Your task to perform on an android device: Show me popular games on the Play Store Image 0: 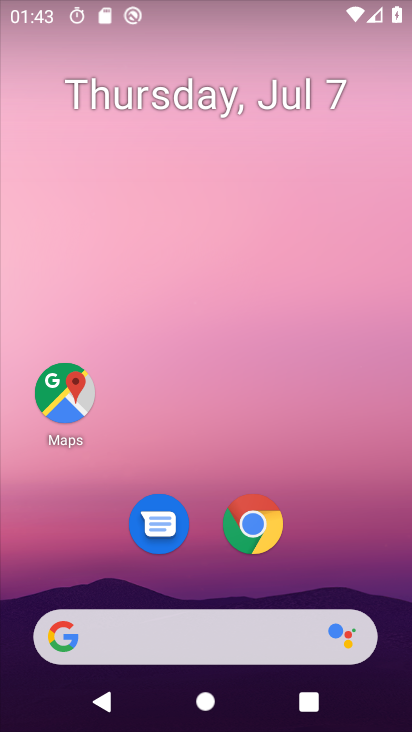
Step 0: drag from (247, 428) to (238, 34)
Your task to perform on an android device: Show me popular games on the Play Store Image 1: 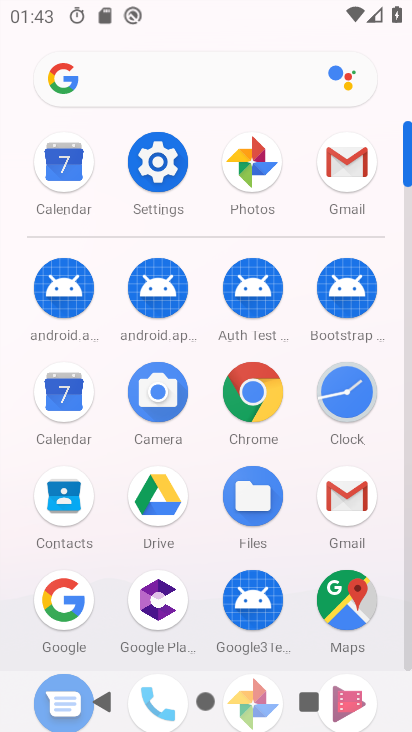
Step 1: drag from (258, 606) to (259, 306)
Your task to perform on an android device: Show me popular games on the Play Store Image 2: 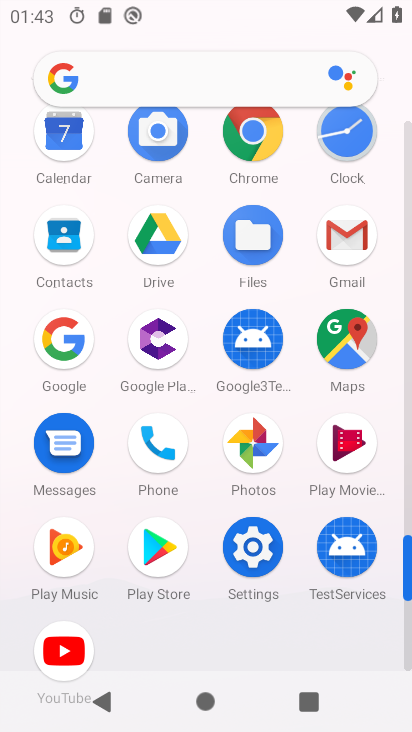
Step 2: click (163, 552)
Your task to perform on an android device: Show me popular games on the Play Store Image 3: 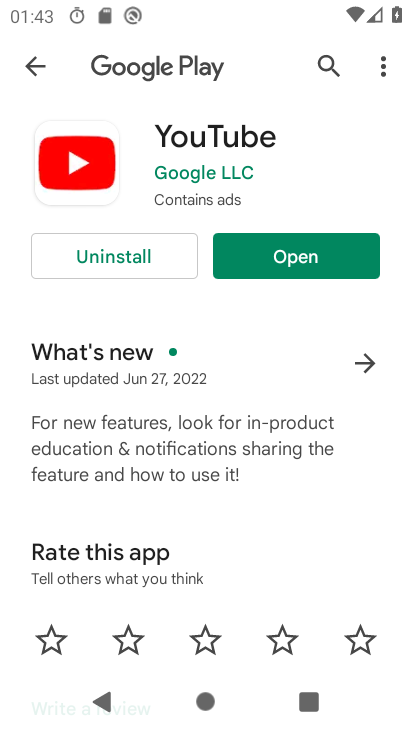
Step 3: click (41, 63)
Your task to perform on an android device: Show me popular games on the Play Store Image 4: 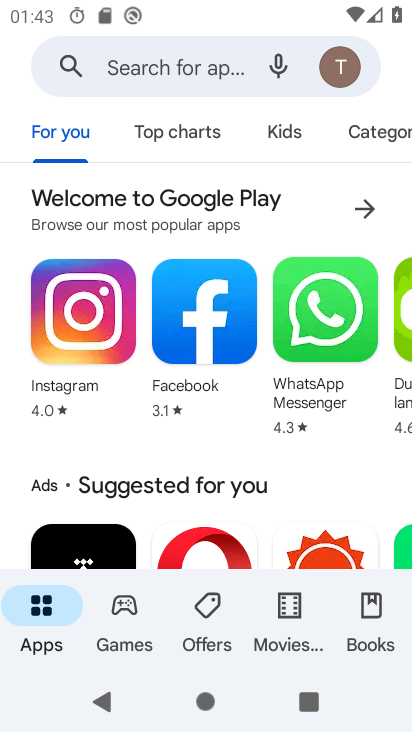
Step 4: click (127, 611)
Your task to perform on an android device: Show me popular games on the Play Store Image 5: 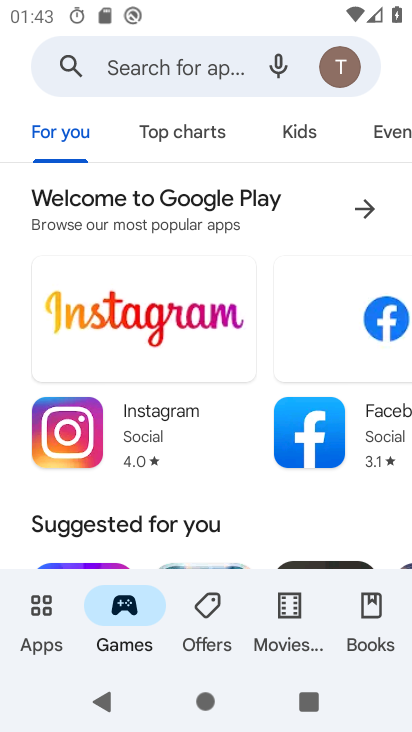
Step 5: drag from (291, 332) to (309, 63)
Your task to perform on an android device: Show me popular games on the Play Store Image 6: 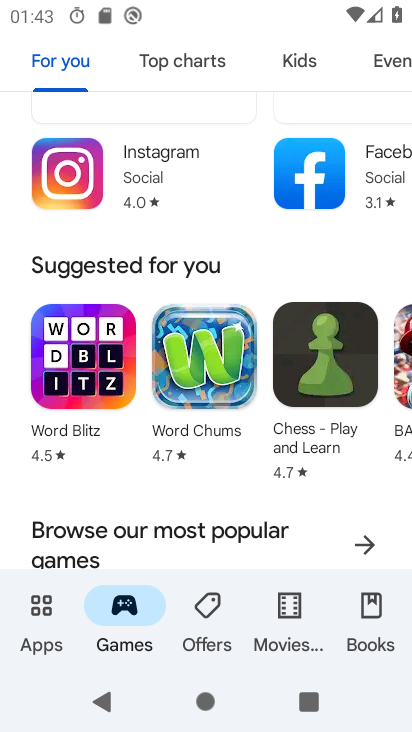
Step 6: drag from (270, 448) to (285, 219)
Your task to perform on an android device: Show me popular games on the Play Store Image 7: 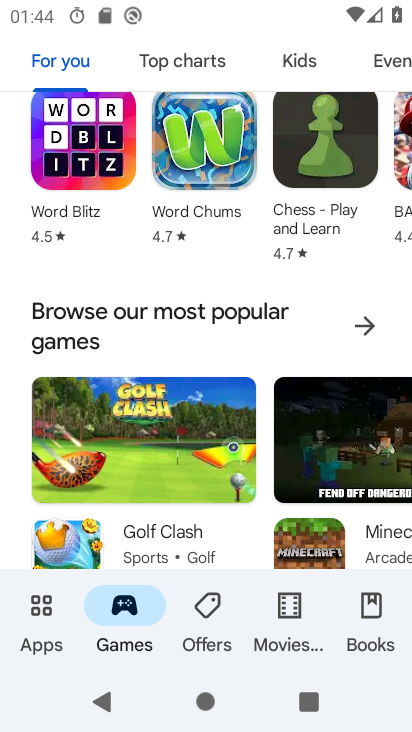
Step 7: click (362, 320)
Your task to perform on an android device: Show me popular games on the Play Store Image 8: 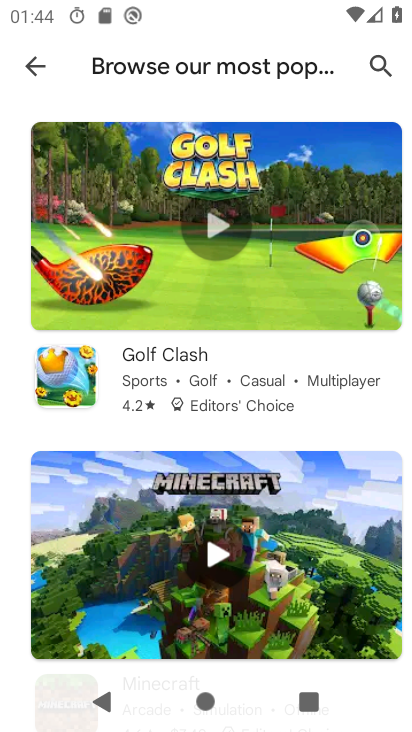
Step 8: task complete